Your task to perform on an android device: turn off picture-in-picture Image 0: 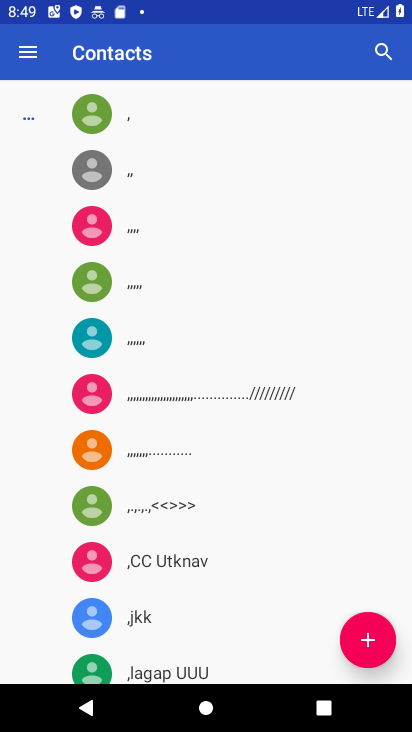
Step 0: press home button
Your task to perform on an android device: turn off picture-in-picture Image 1: 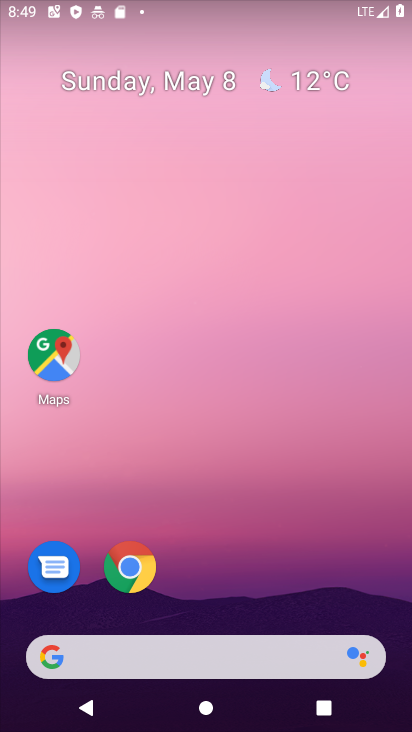
Step 1: click (130, 581)
Your task to perform on an android device: turn off picture-in-picture Image 2: 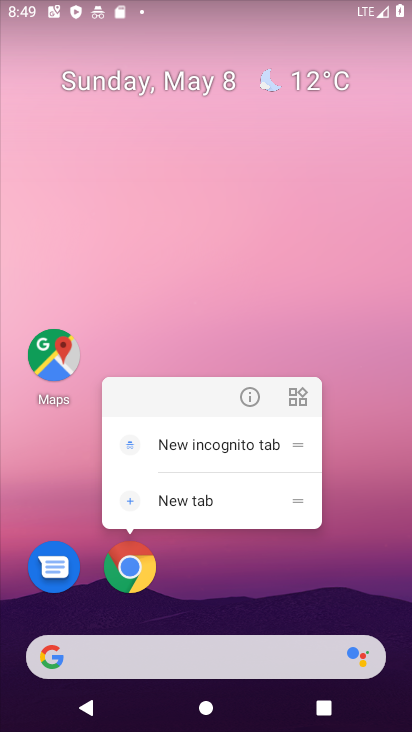
Step 2: click (257, 396)
Your task to perform on an android device: turn off picture-in-picture Image 3: 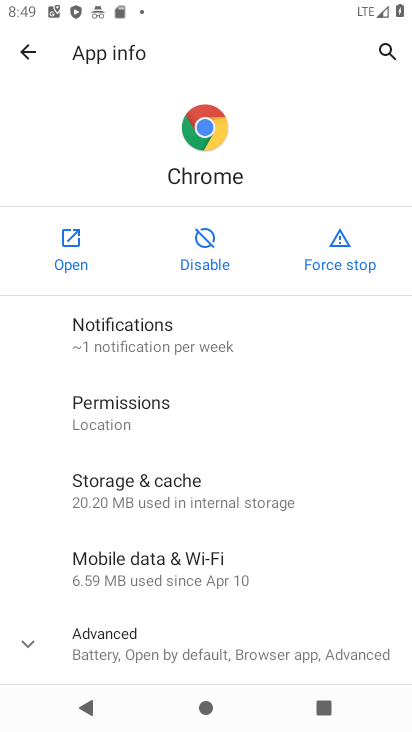
Step 3: drag from (209, 657) to (55, 13)
Your task to perform on an android device: turn off picture-in-picture Image 4: 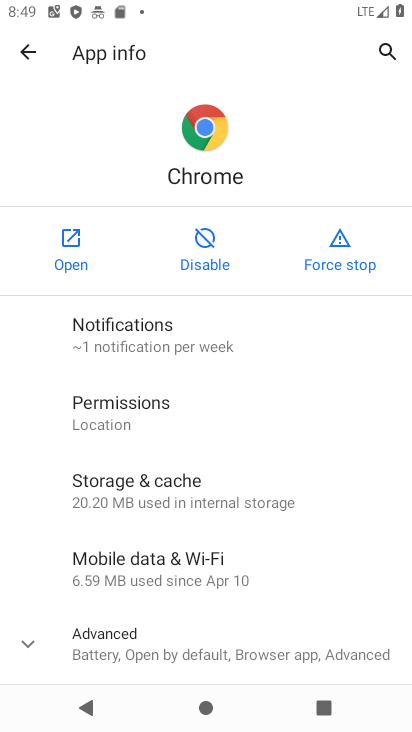
Step 4: click (122, 645)
Your task to perform on an android device: turn off picture-in-picture Image 5: 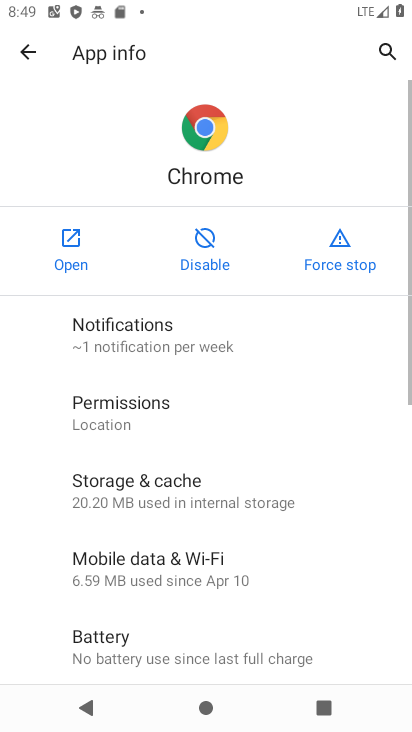
Step 5: drag from (158, 642) to (211, 94)
Your task to perform on an android device: turn off picture-in-picture Image 6: 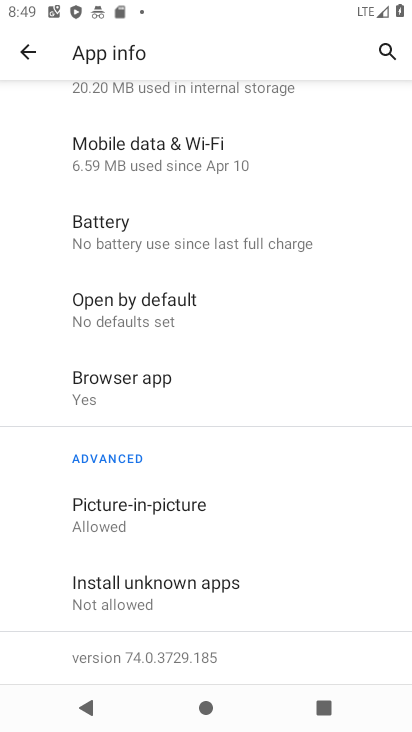
Step 6: click (140, 504)
Your task to perform on an android device: turn off picture-in-picture Image 7: 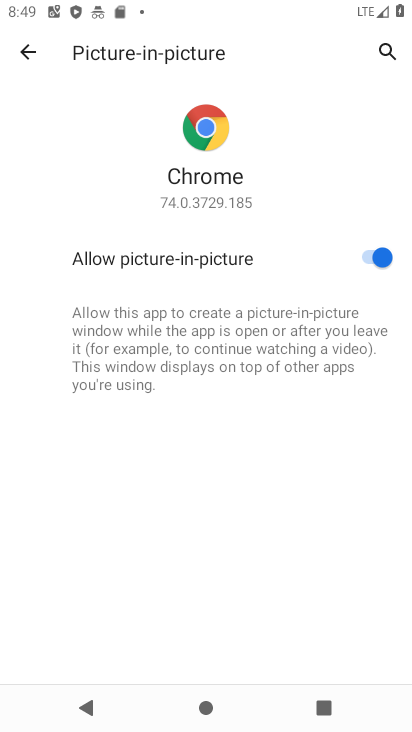
Step 7: click (380, 258)
Your task to perform on an android device: turn off picture-in-picture Image 8: 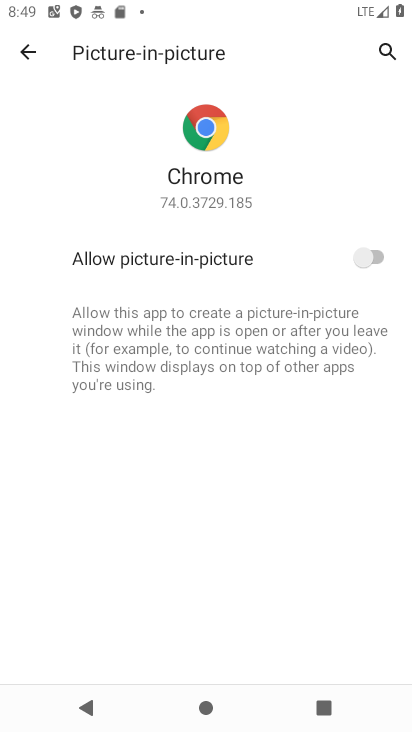
Step 8: task complete